Your task to perform on an android device: Open calendar and show me the second week of next month Image 0: 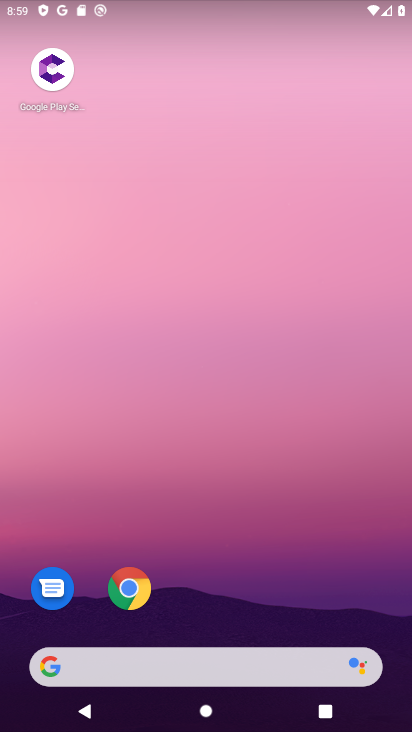
Step 0: drag from (219, 693) to (202, 15)
Your task to perform on an android device: Open calendar and show me the second week of next month Image 1: 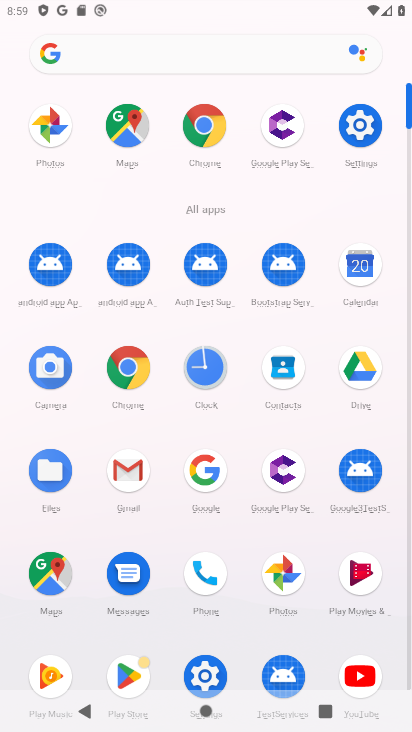
Step 1: click (368, 273)
Your task to perform on an android device: Open calendar and show me the second week of next month Image 2: 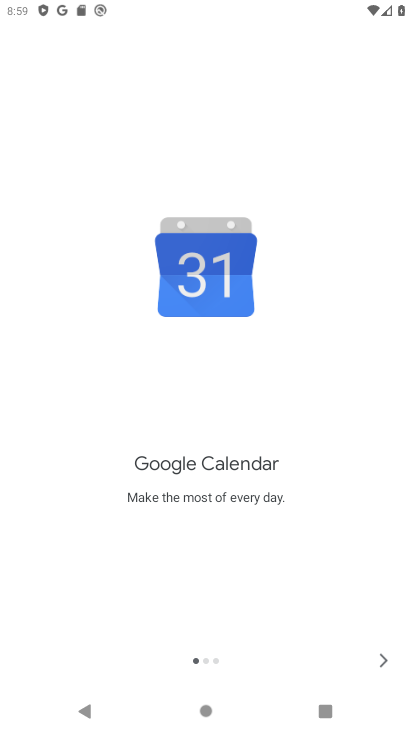
Step 2: click (379, 660)
Your task to perform on an android device: Open calendar and show me the second week of next month Image 3: 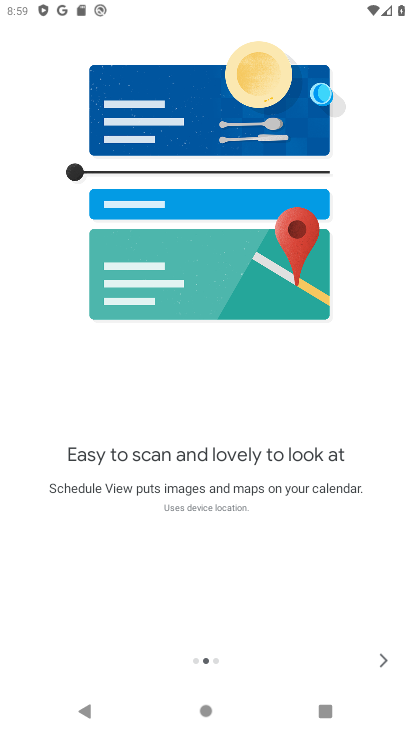
Step 3: click (379, 660)
Your task to perform on an android device: Open calendar and show me the second week of next month Image 4: 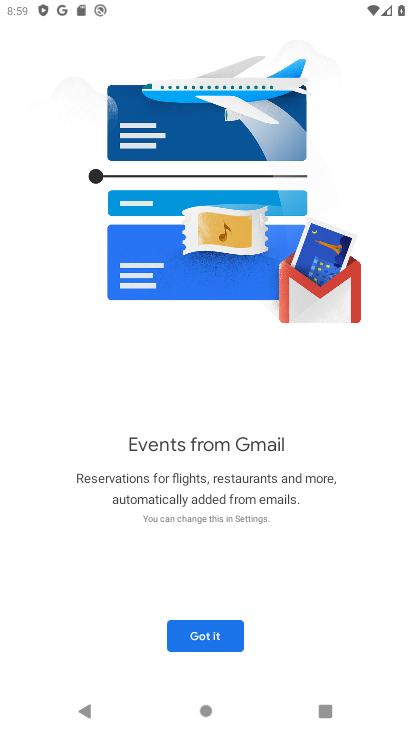
Step 4: click (205, 638)
Your task to perform on an android device: Open calendar and show me the second week of next month Image 5: 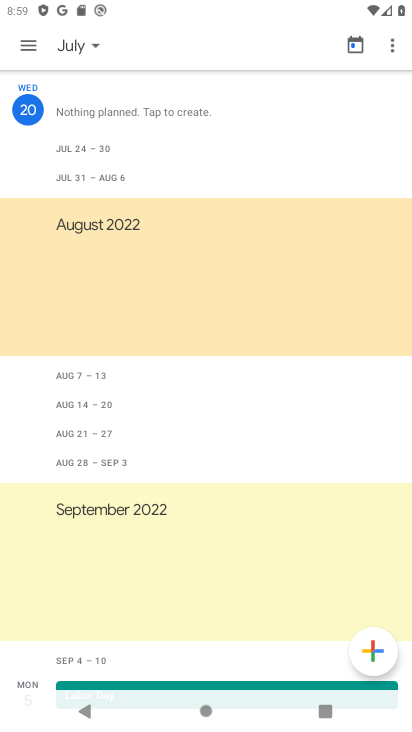
Step 5: click (92, 41)
Your task to perform on an android device: Open calendar and show me the second week of next month Image 6: 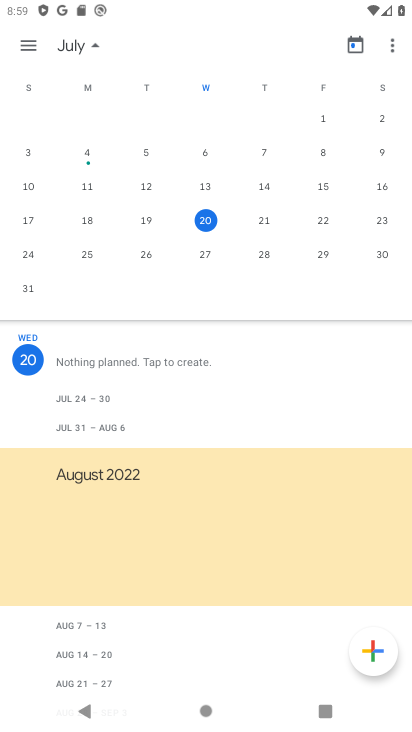
Step 6: drag from (357, 232) to (32, 203)
Your task to perform on an android device: Open calendar and show me the second week of next month Image 7: 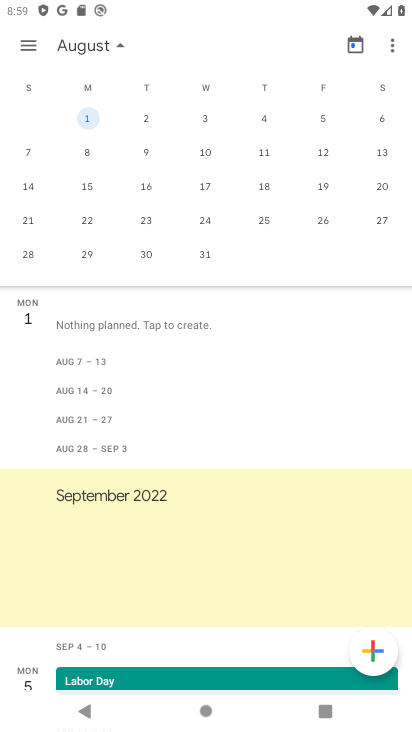
Step 7: click (205, 153)
Your task to perform on an android device: Open calendar and show me the second week of next month Image 8: 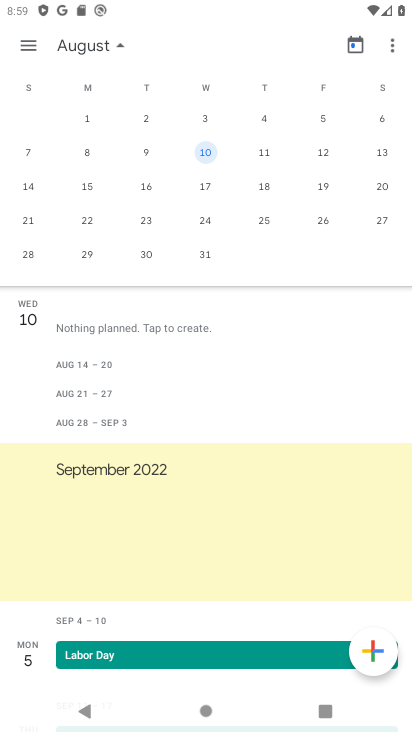
Step 8: click (27, 38)
Your task to perform on an android device: Open calendar and show me the second week of next month Image 9: 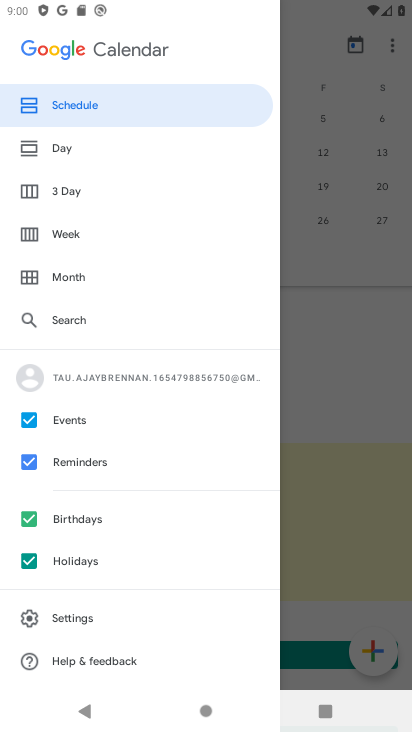
Step 9: click (83, 238)
Your task to perform on an android device: Open calendar and show me the second week of next month Image 10: 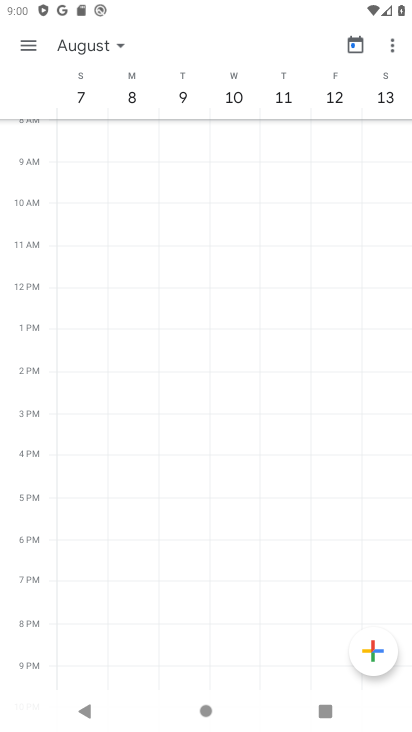
Step 10: task complete